Your task to perform on an android device: Open internet settings Image 0: 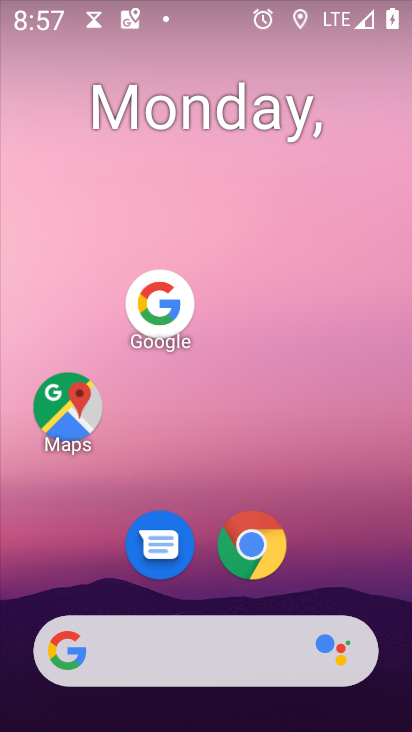
Step 0: press home button
Your task to perform on an android device: Open internet settings Image 1: 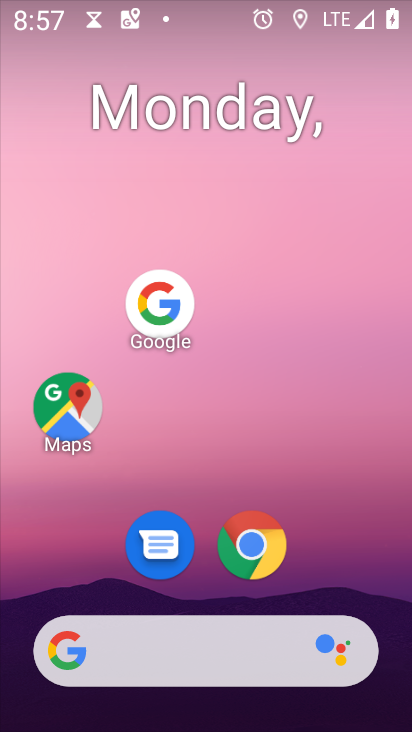
Step 1: drag from (137, 665) to (272, 84)
Your task to perform on an android device: Open internet settings Image 2: 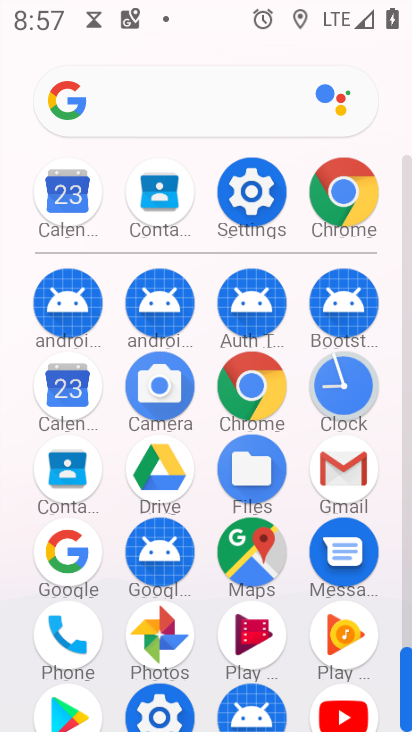
Step 2: click (243, 201)
Your task to perform on an android device: Open internet settings Image 3: 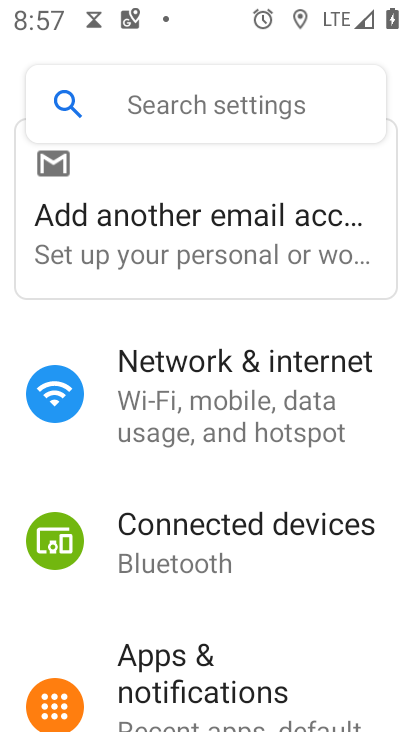
Step 3: click (257, 361)
Your task to perform on an android device: Open internet settings Image 4: 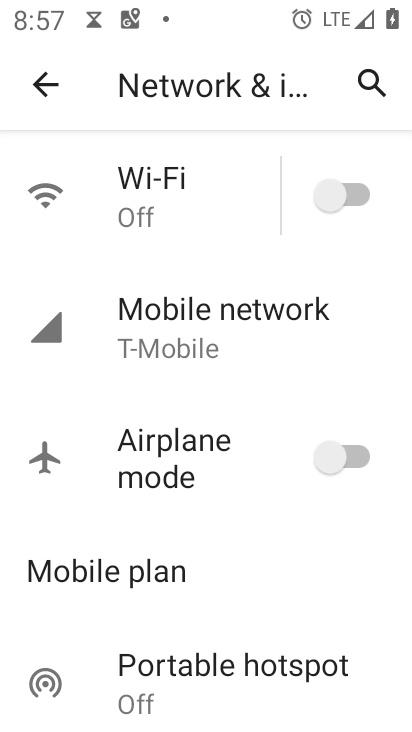
Step 4: task complete